Your task to perform on an android device: Check the news Image 0: 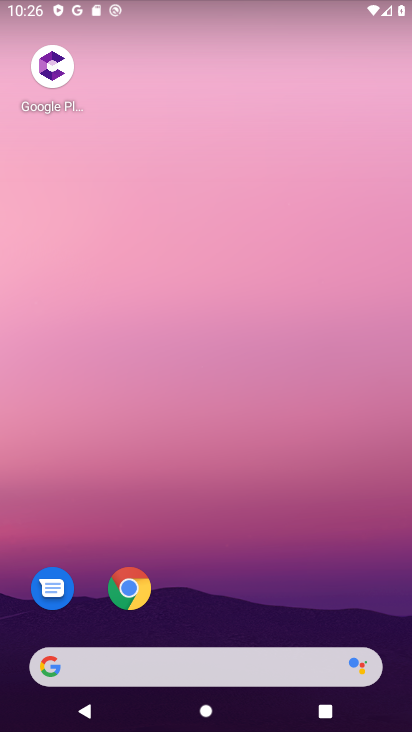
Step 0: drag from (8, 348) to (409, 369)
Your task to perform on an android device: Check the news Image 1: 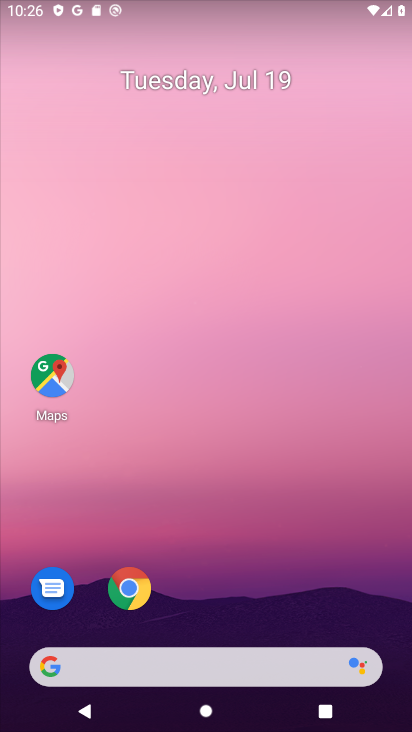
Step 1: task complete